Your task to perform on an android device: Go to sound settings Image 0: 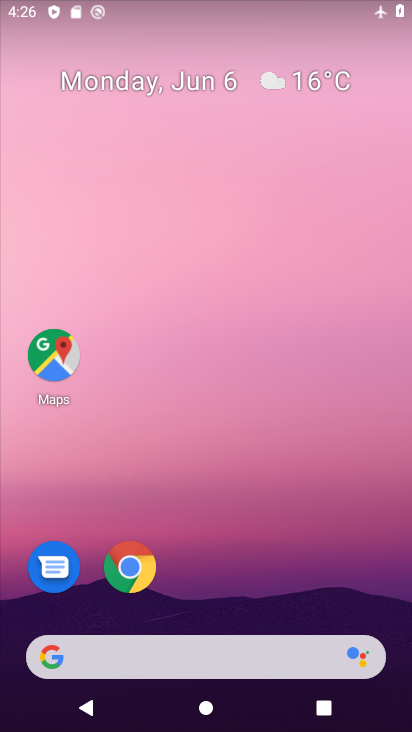
Step 0: drag from (158, 631) to (401, 68)
Your task to perform on an android device: Go to sound settings Image 1: 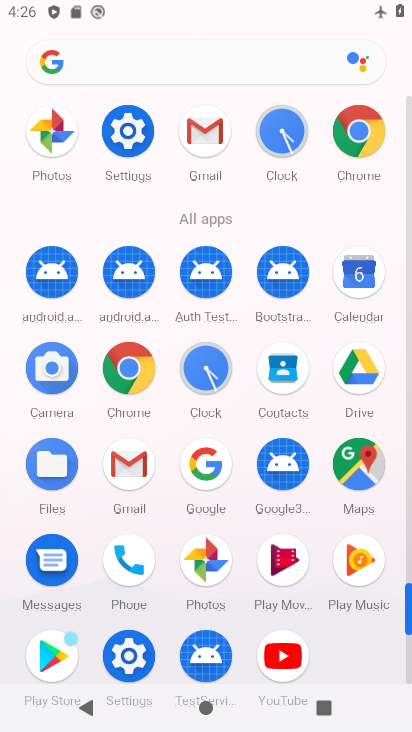
Step 1: click (141, 673)
Your task to perform on an android device: Go to sound settings Image 2: 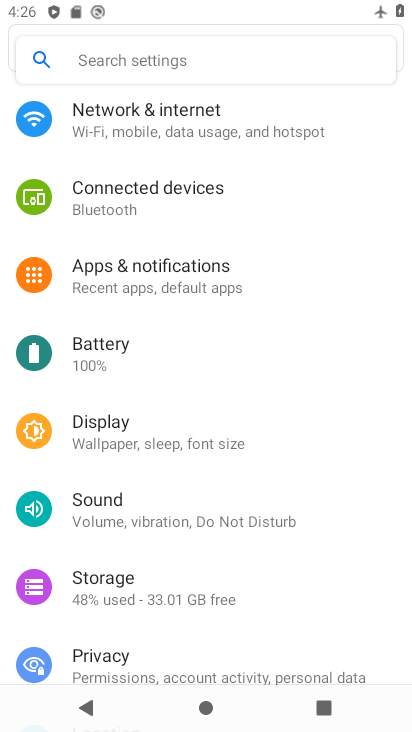
Step 2: click (141, 673)
Your task to perform on an android device: Go to sound settings Image 3: 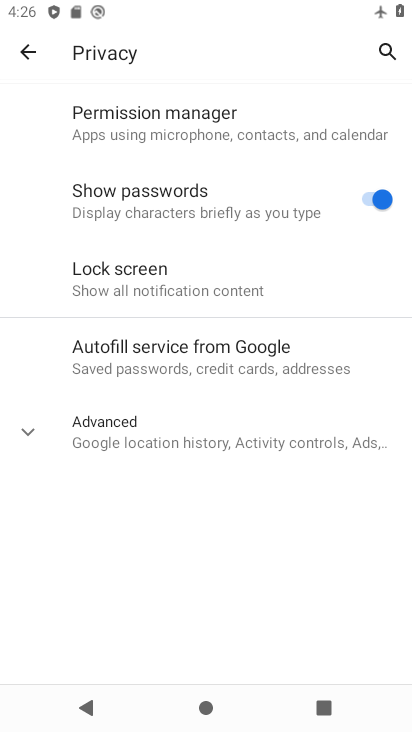
Step 3: press back button
Your task to perform on an android device: Go to sound settings Image 4: 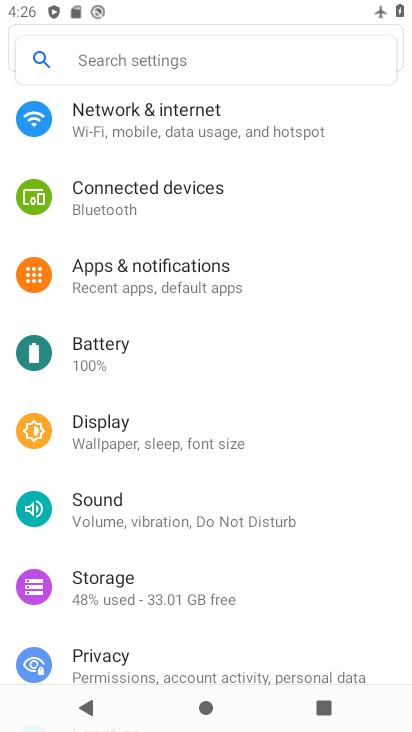
Step 4: click (177, 517)
Your task to perform on an android device: Go to sound settings Image 5: 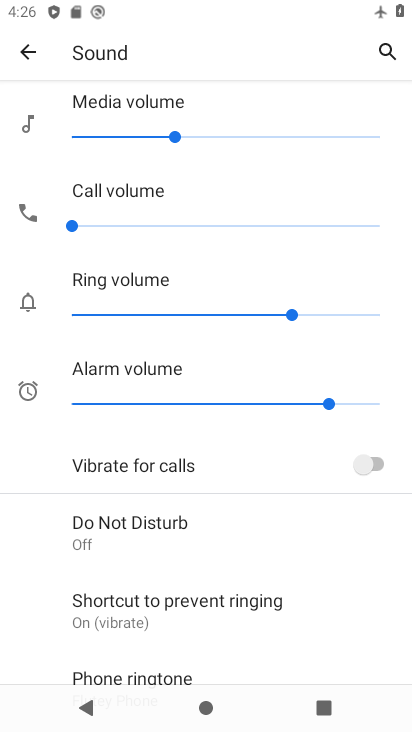
Step 5: task complete